Your task to perform on an android device: open app "LiveIn - Share Your Moment" (install if not already installed), go to login, and select forgot password Image 0: 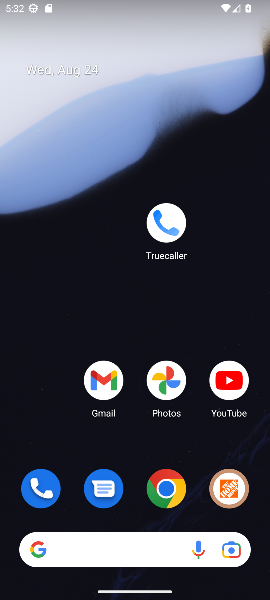
Step 0: drag from (143, 527) to (178, 44)
Your task to perform on an android device: open app "LiveIn - Share Your Moment" (install if not already installed), go to login, and select forgot password Image 1: 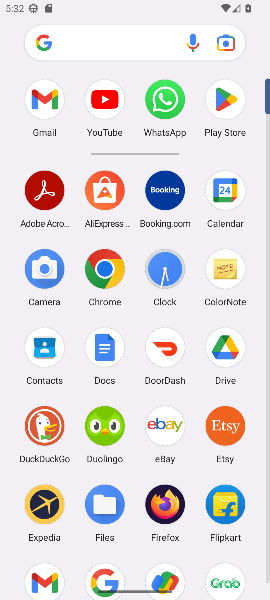
Step 1: click (217, 95)
Your task to perform on an android device: open app "LiveIn - Share Your Moment" (install if not already installed), go to login, and select forgot password Image 2: 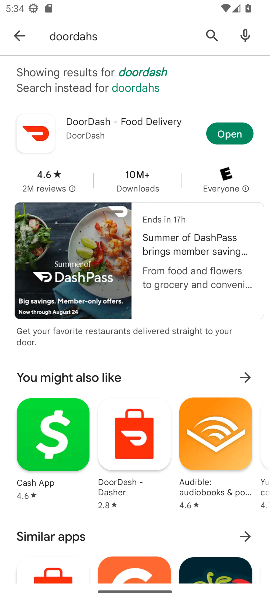
Step 2: click (213, 41)
Your task to perform on an android device: open app "LiveIn - Share Your Moment" (install if not already installed), go to login, and select forgot password Image 3: 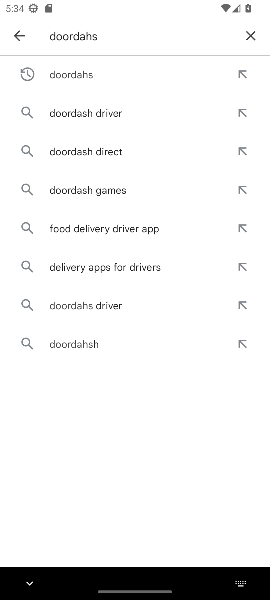
Step 3: click (247, 40)
Your task to perform on an android device: open app "LiveIn - Share Your Moment" (install if not already installed), go to login, and select forgot password Image 4: 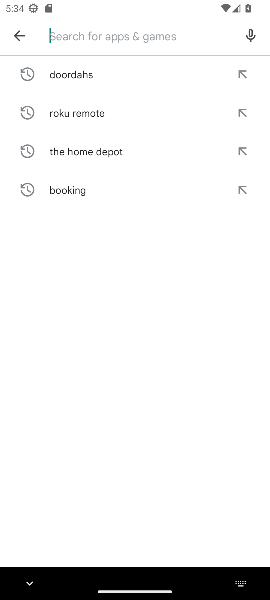
Step 4: type "livein"
Your task to perform on an android device: open app "LiveIn - Share Your Moment" (install if not already installed), go to login, and select forgot password Image 5: 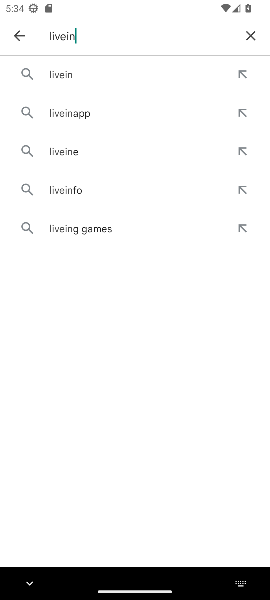
Step 5: click (149, 62)
Your task to perform on an android device: open app "LiveIn - Share Your Moment" (install if not already installed), go to login, and select forgot password Image 6: 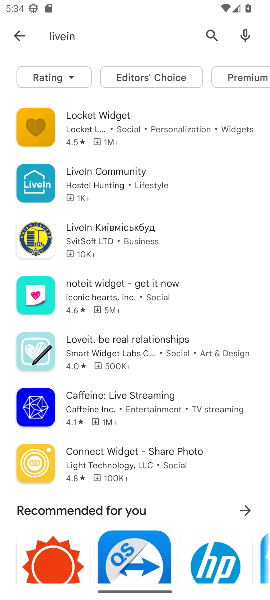
Step 6: click (137, 161)
Your task to perform on an android device: open app "LiveIn - Share Your Moment" (install if not already installed), go to login, and select forgot password Image 7: 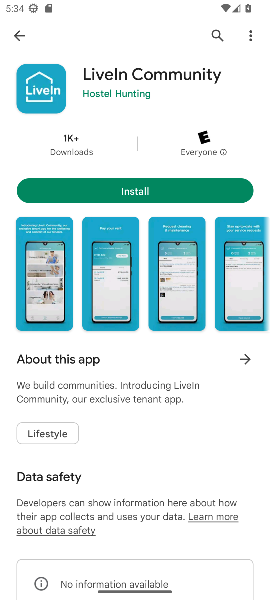
Step 7: task complete